Your task to perform on an android device: turn off data saver in the chrome app Image 0: 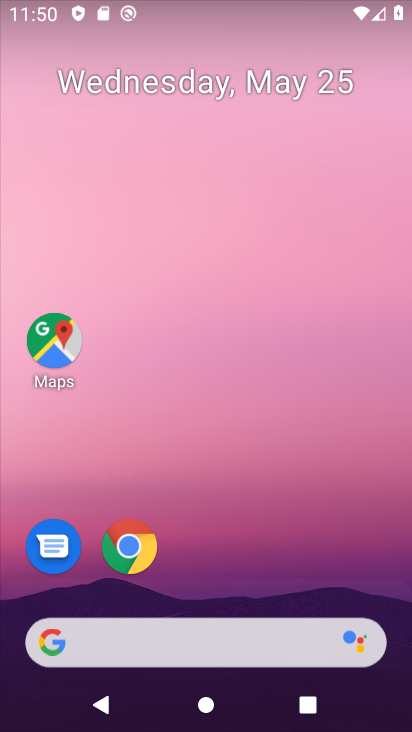
Step 0: drag from (333, 594) to (295, 34)
Your task to perform on an android device: turn off data saver in the chrome app Image 1: 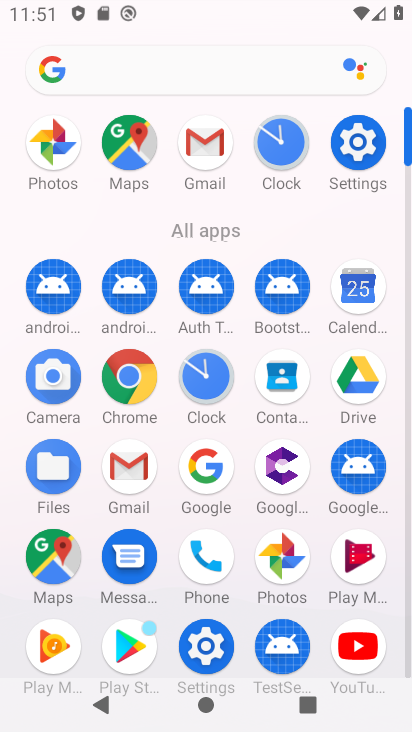
Step 1: click (126, 382)
Your task to perform on an android device: turn off data saver in the chrome app Image 2: 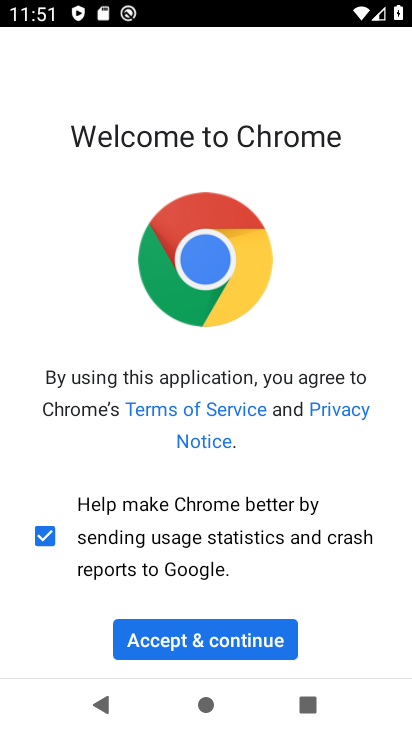
Step 2: click (204, 642)
Your task to perform on an android device: turn off data saver in the chrome app Image 3: 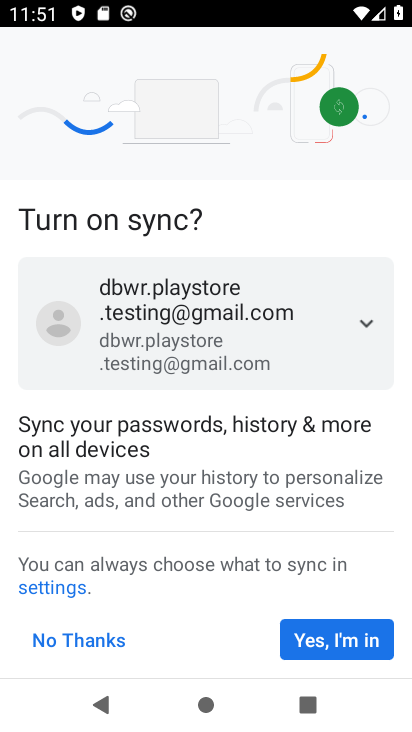
Step 3: click (329, 645)
Your task to perform on an android device: turn off data saver in the chrome app Image 4: 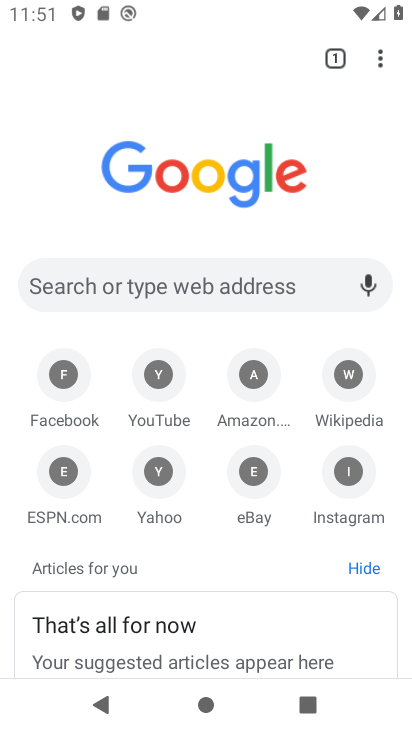
Step 4: click (387, 52)
Your task to perform on an android device: turn off data saver in the chrome app Image 5: 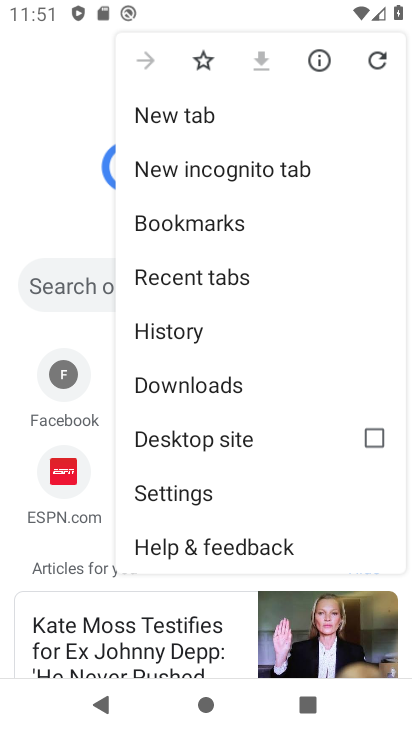
Step 5: click (194, 495)
Your task to perform on an android device: turn off data saver in the chrome app Image 6: 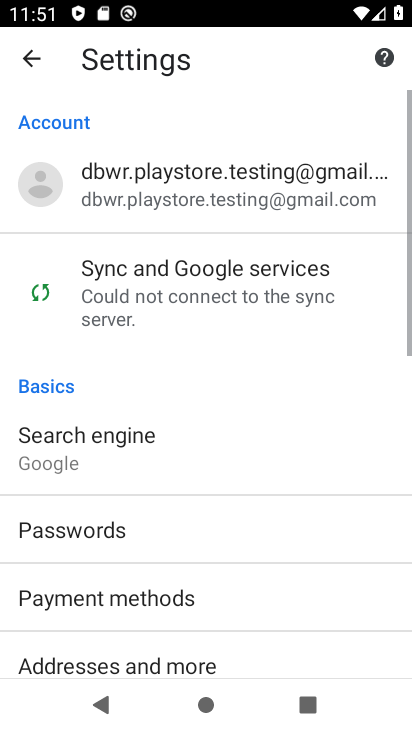
Step 6: drag from (144, 630) to (192, 144)
Your task to perform on an android device: turn off data saver in the chrome app Image 7: 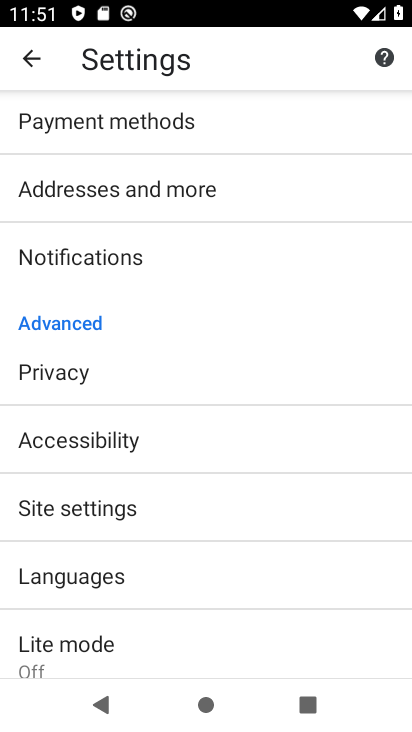
Step 7: click (88, 641)
Your task to perform on an android device: turn off data saver in the chrome app Image 8: 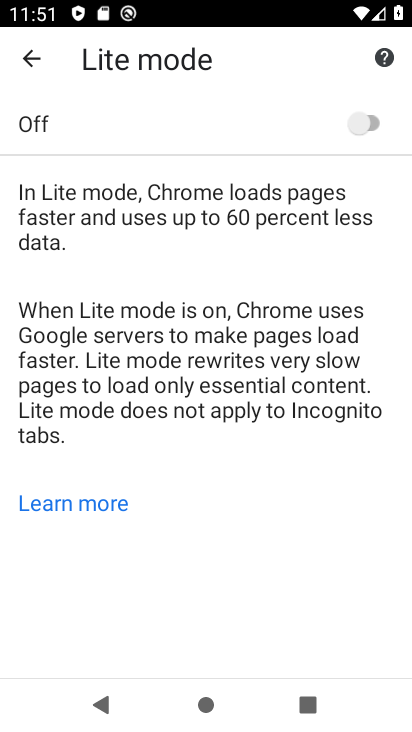
Step 8: task complete